Your task to perform on an android device: turn off wifi Image 0: 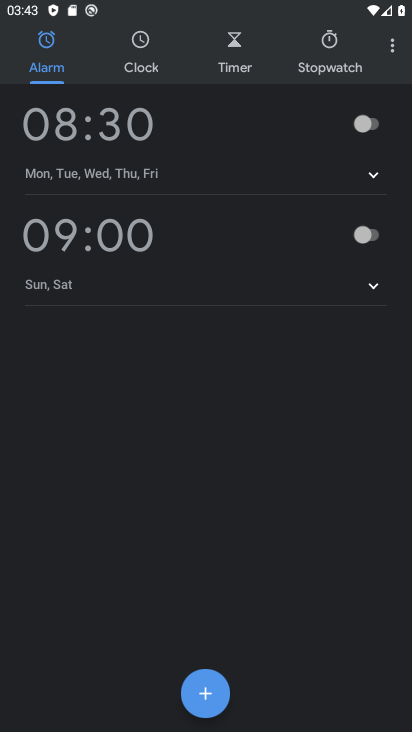
Step 0: press home button
Your task to perform on an android device: turn off wifi Image 1: 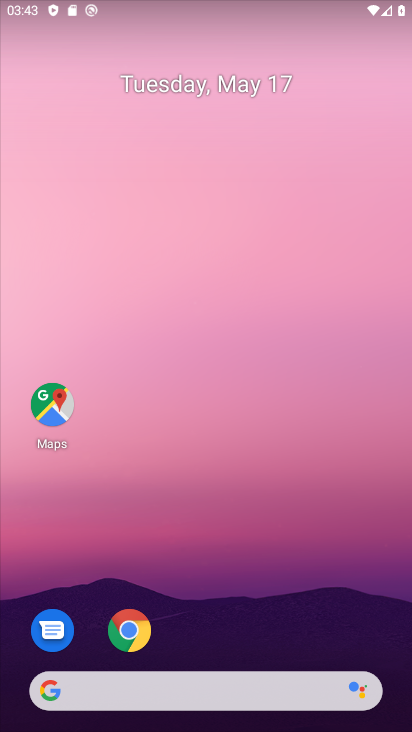
Step 1: drag from (181, 650) to (289, 183)
Your task to perform on an android device: turn off wifi Image 2: 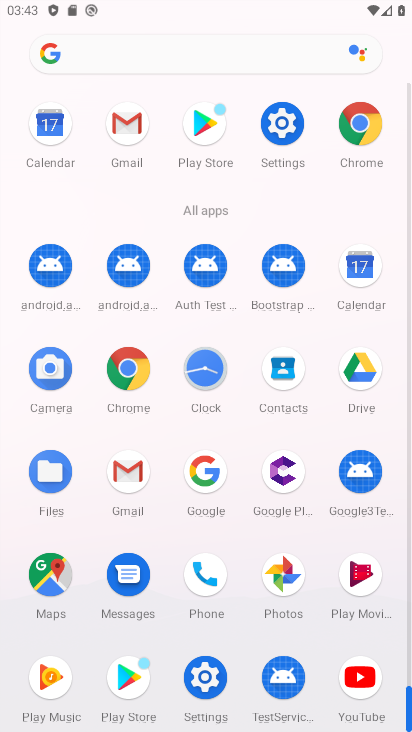
Step 2: click (203, 687)
Your task to perform on an android device: turn off wifi Image 3: 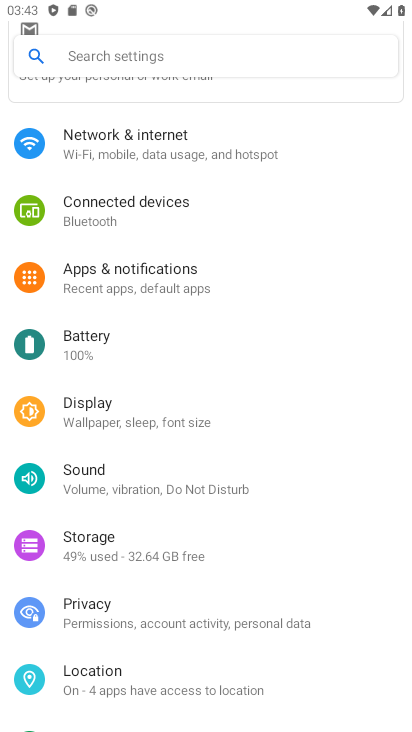
Step 3: click (221, 164)
Your task to perform on an android device: turn off wifi Image 4: 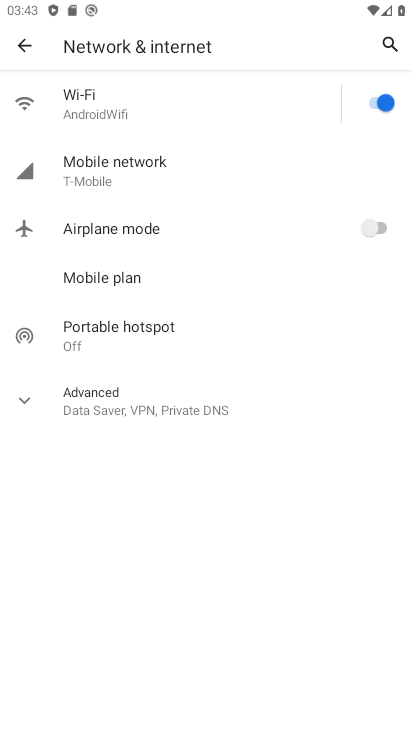
Step 4: click (378, 105)
Your task to perform on an android device: turn off wifi Image 5: 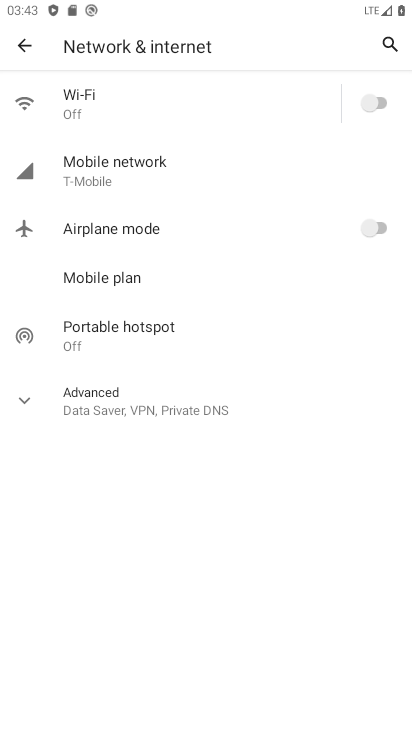
Step 5: task complete